Your task to perform on an android device: Open settings Image 0: 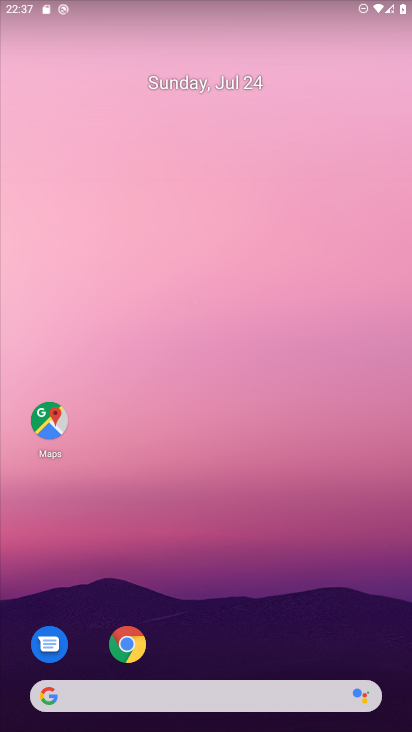
Step 0: drag from (348, 652) to (340, 126)
Your task to perform on an android device: Open settings Image 1: 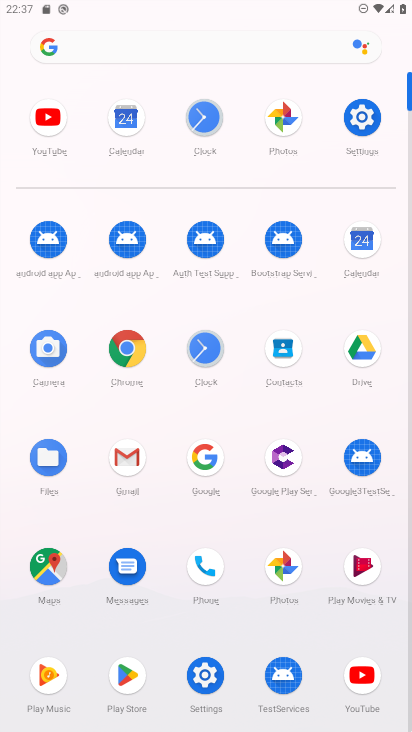
Step 1: click (204, 676)
Your task to perform on an android device: Open settings Image 2: 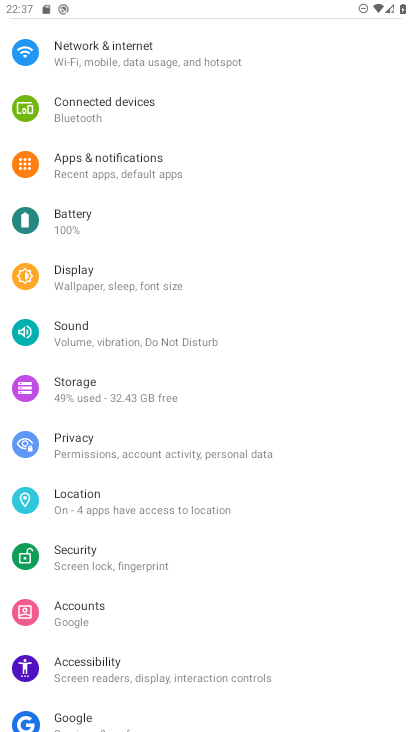
Step 2: task complete